Your task to perform on an android device: Go to privacy settings Image 0: 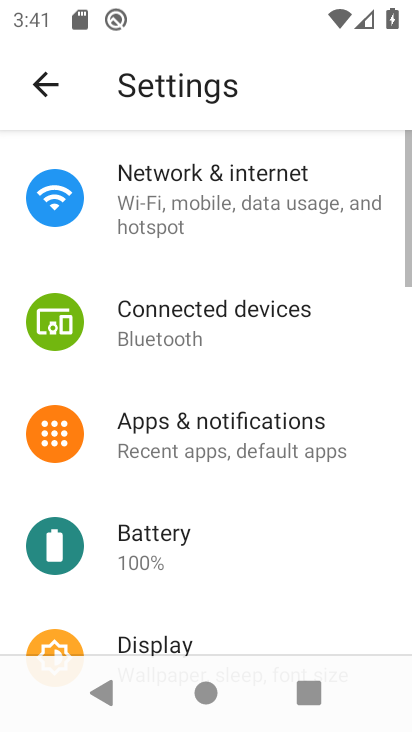
Step 0: press home button
Your task to perform on an android device: Go to privacy settings Image 1: 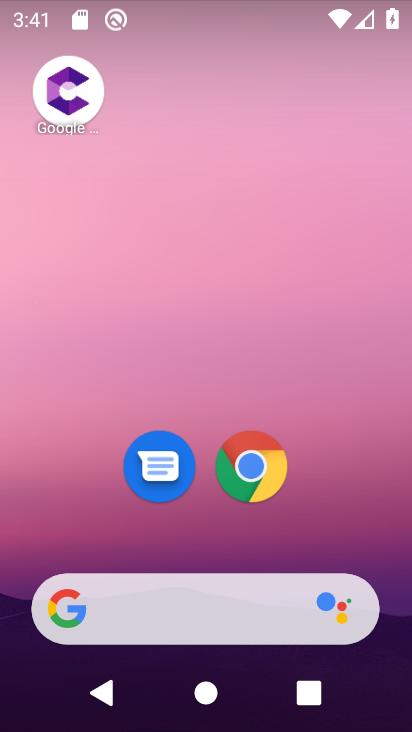
Step 1: drag from (308, 509) to (347, 57)
Your task to perform on an android device: Go to privacy settings Image 2: 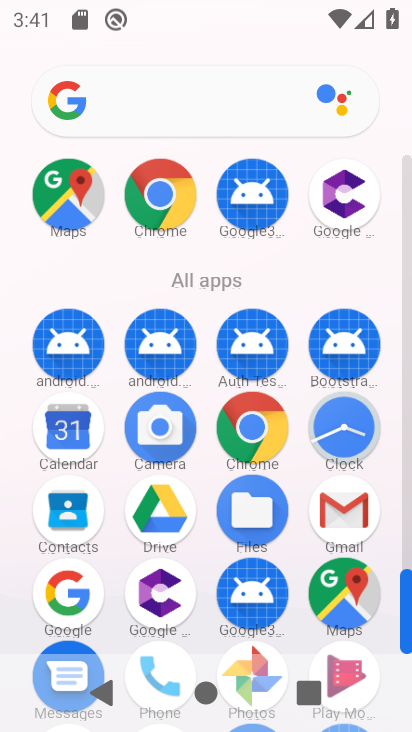
Step 2: drag from (181, 306) to (213, 73)
Your task to perform on an android device: Go to privacy settings Image 3: 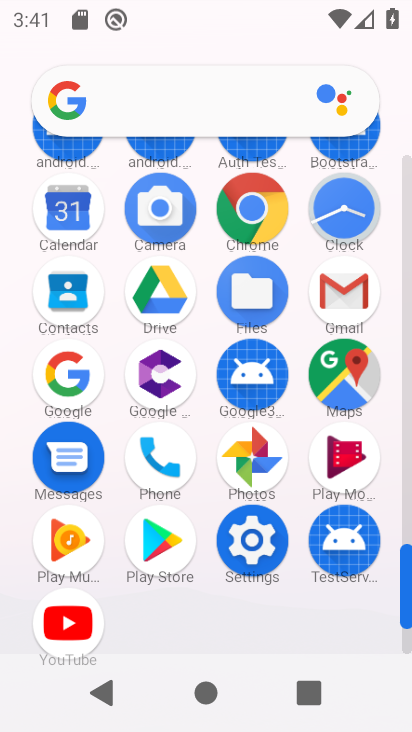
Step 3: click (241, 552)
Your task to perform on an android device: Go to privacy settings Image 4: 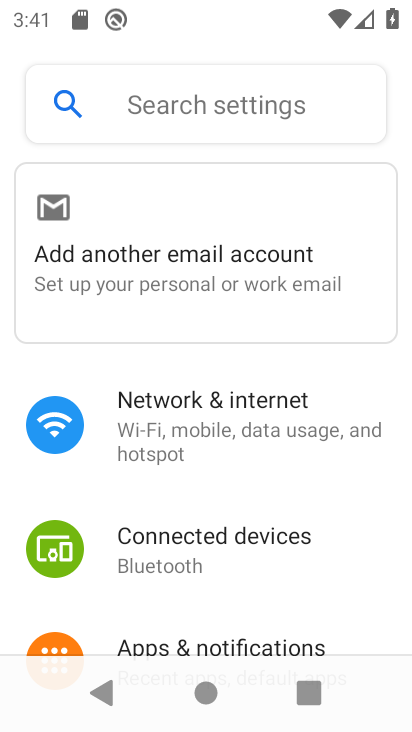
Step 4: drag from (160, 562) to (219, 63)
Your task to perform on an android device: Go to privacy settings Image 5: 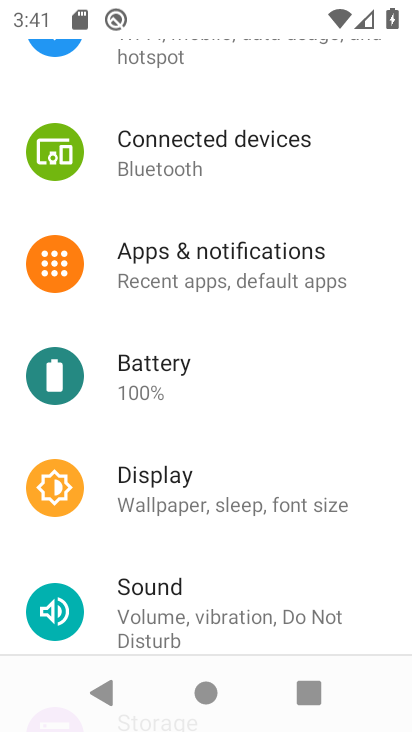
Step 5: drag from (206, 602) to (282, 180)
Your task to perform on an android device: Go to privacy settings Image 6: 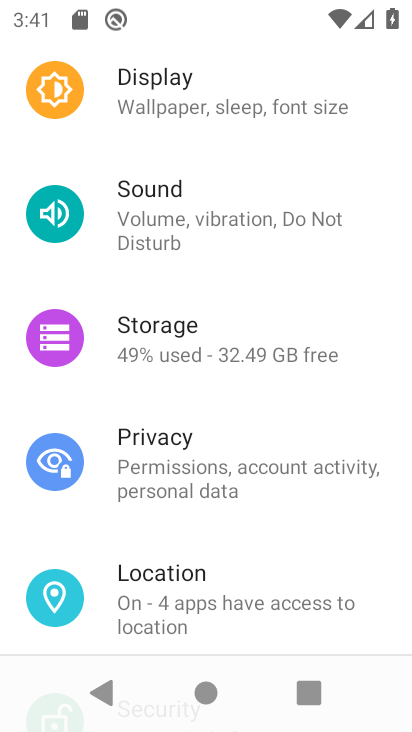
Step 6: click (152, 461)
Your task to perform on an android device: Go to privacy settings Image 7: 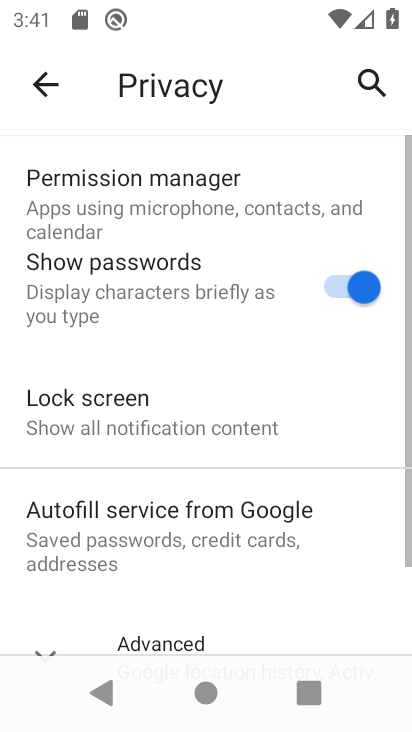
Step 7: task complete